Your task to perform on an android device: What is the capital of Italy? Image 0: 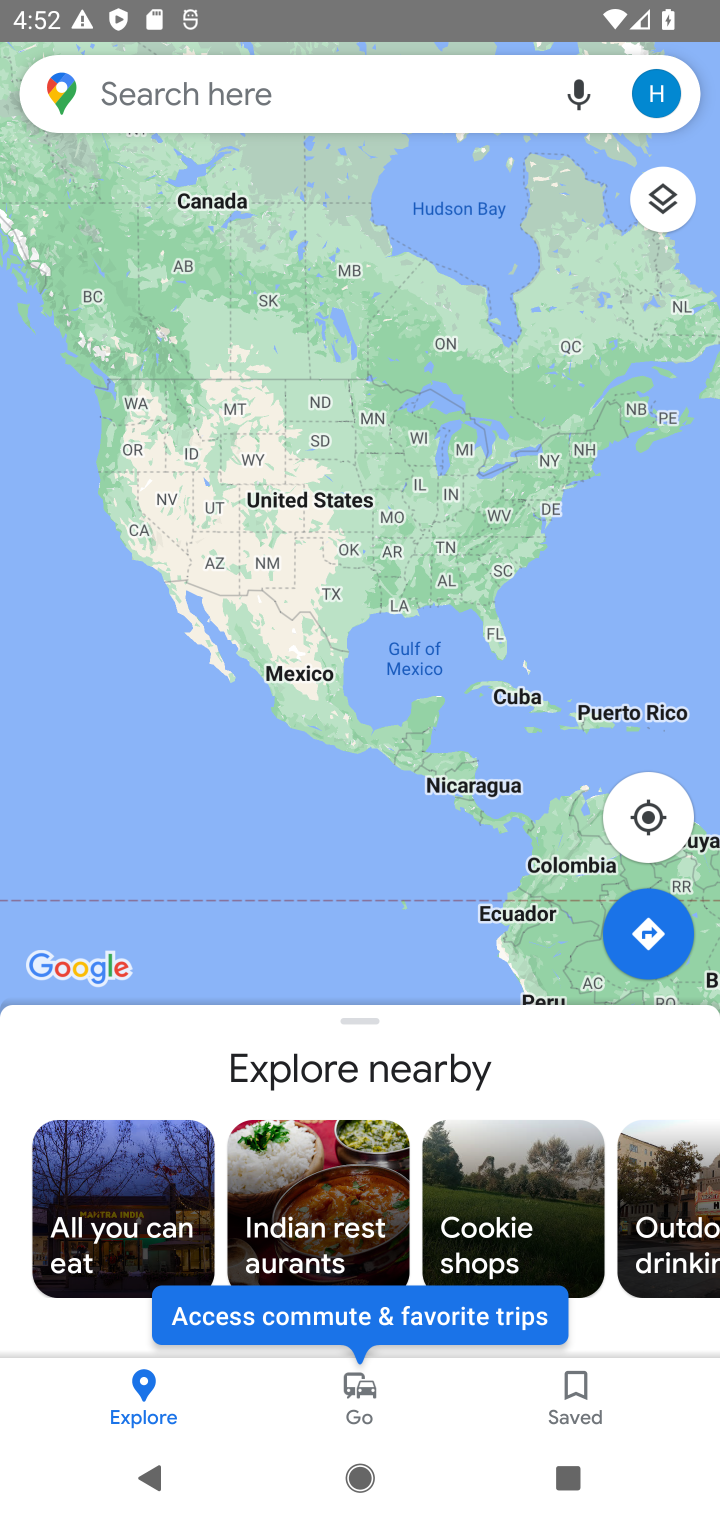
Step 0: press home button
Your task to perform on an android device: What is the capital of Italy? Image 1: 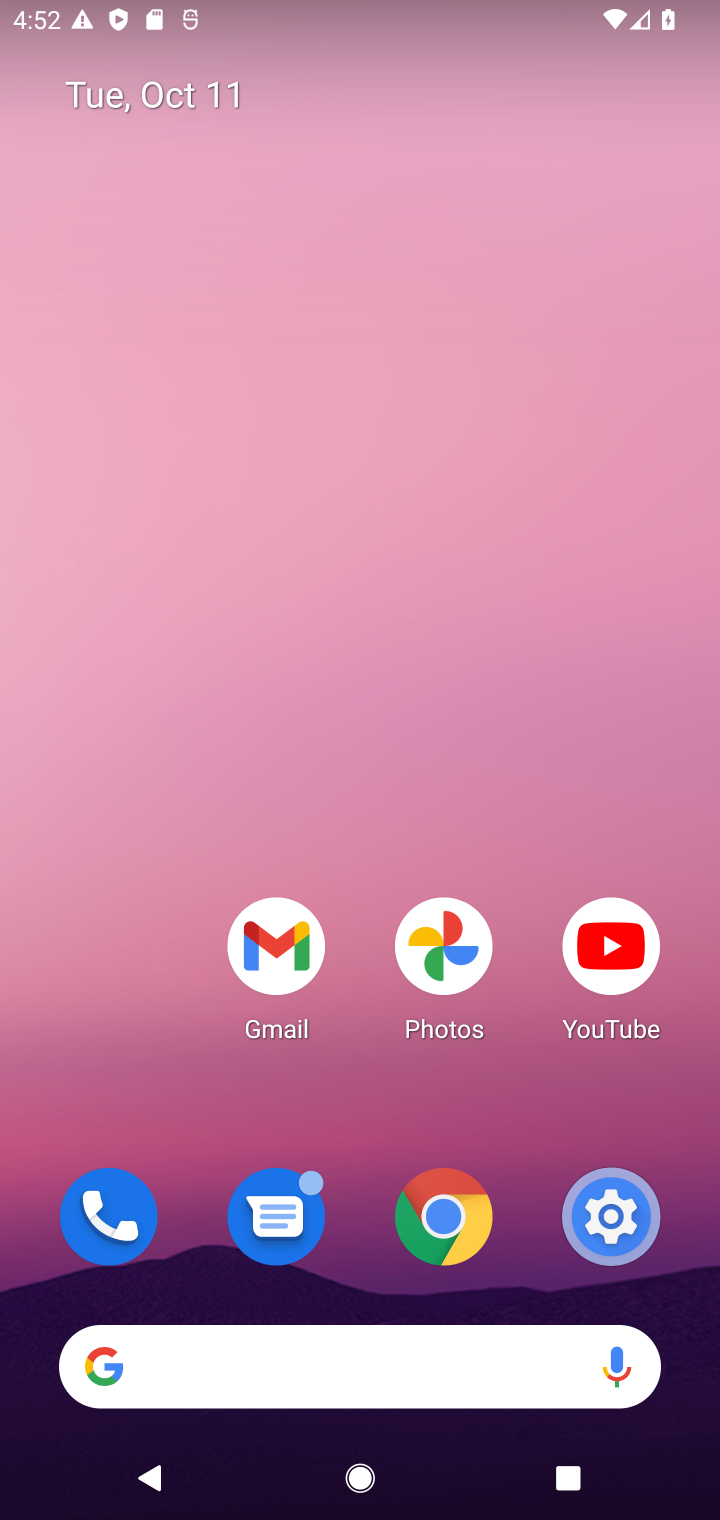
Step 1: click (440, 1223)
Your task to perform on an android device: What is the capital of Italy? Image 2: 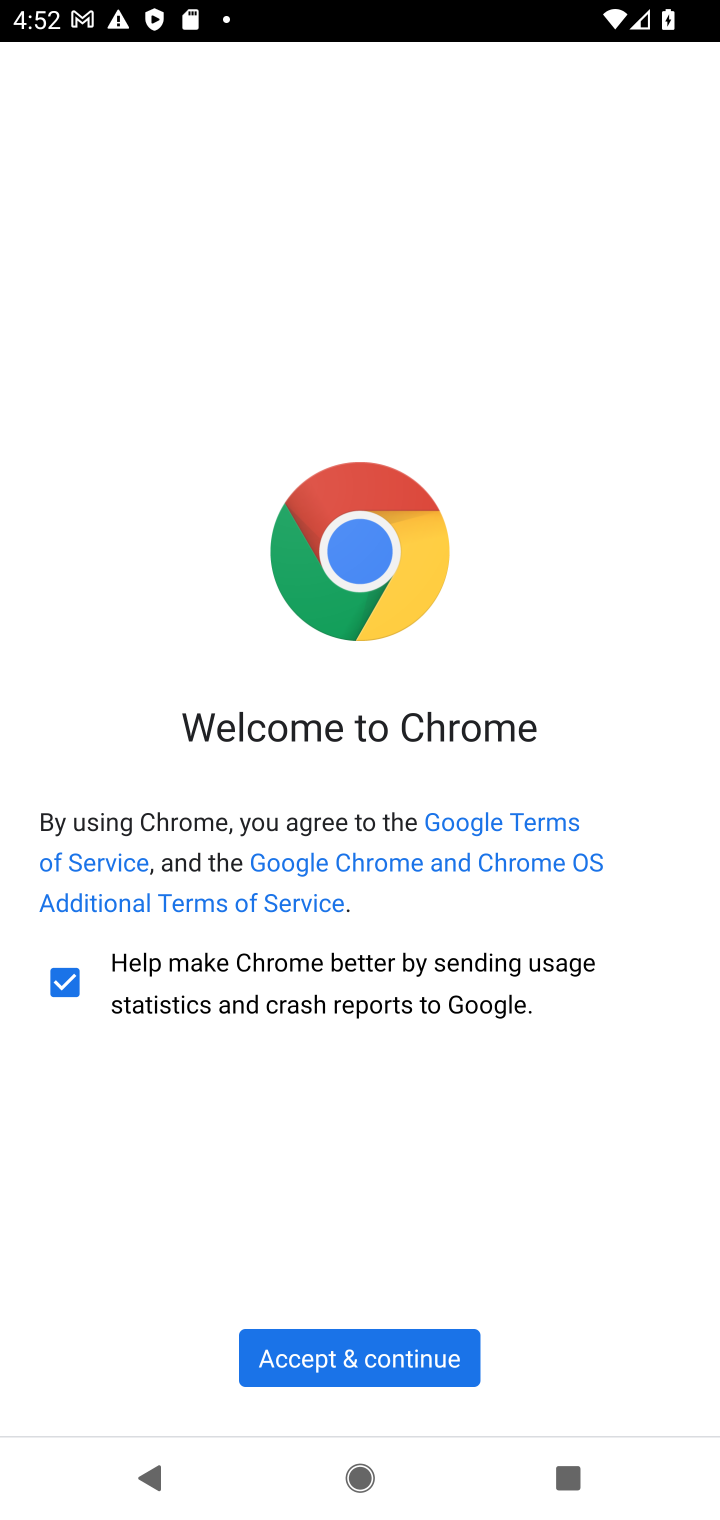
Step 2: click (350, 1360)
Your task to perform on an android device: What is the capital of Italy? Image 3: 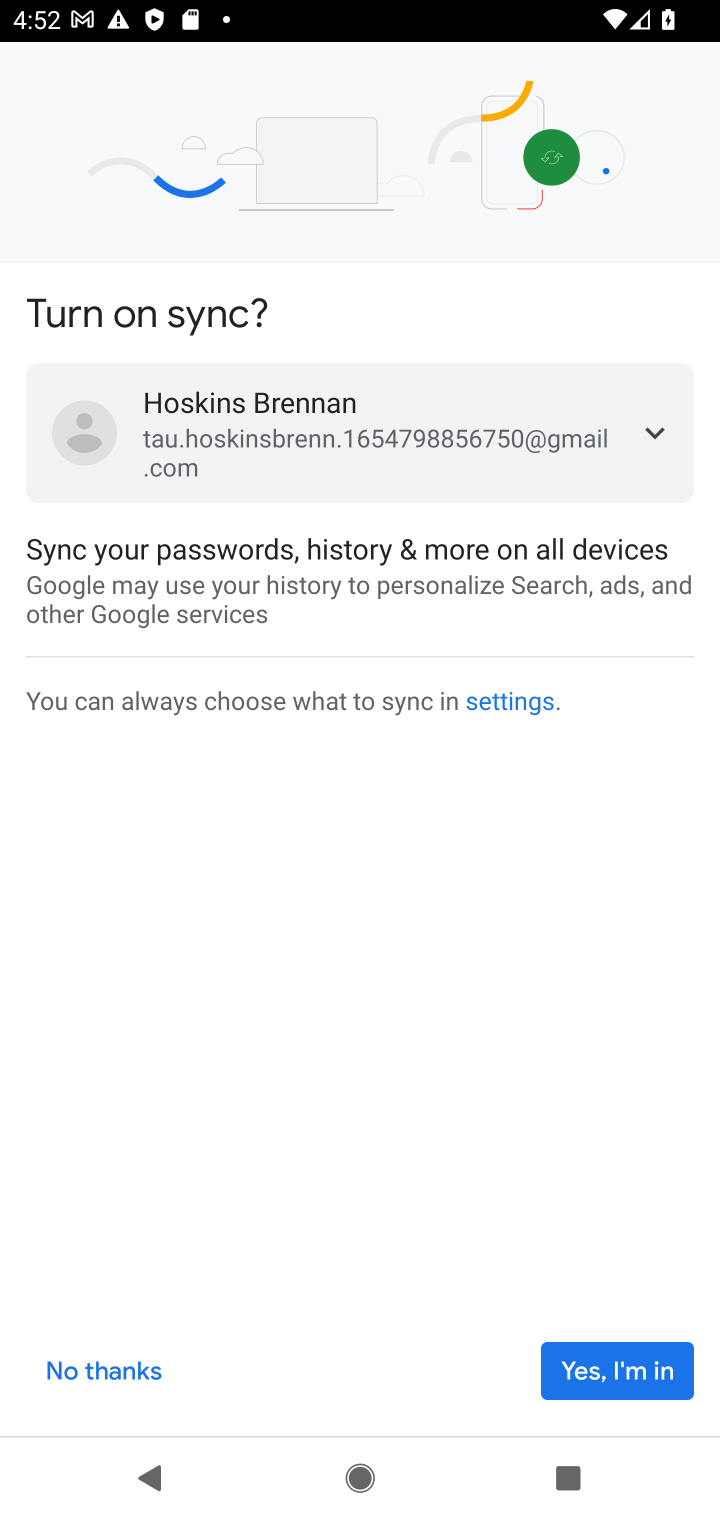
Step 3: click (598, 1374)
Your task to perform on an android device: What is the capital of Italy? Image 4: 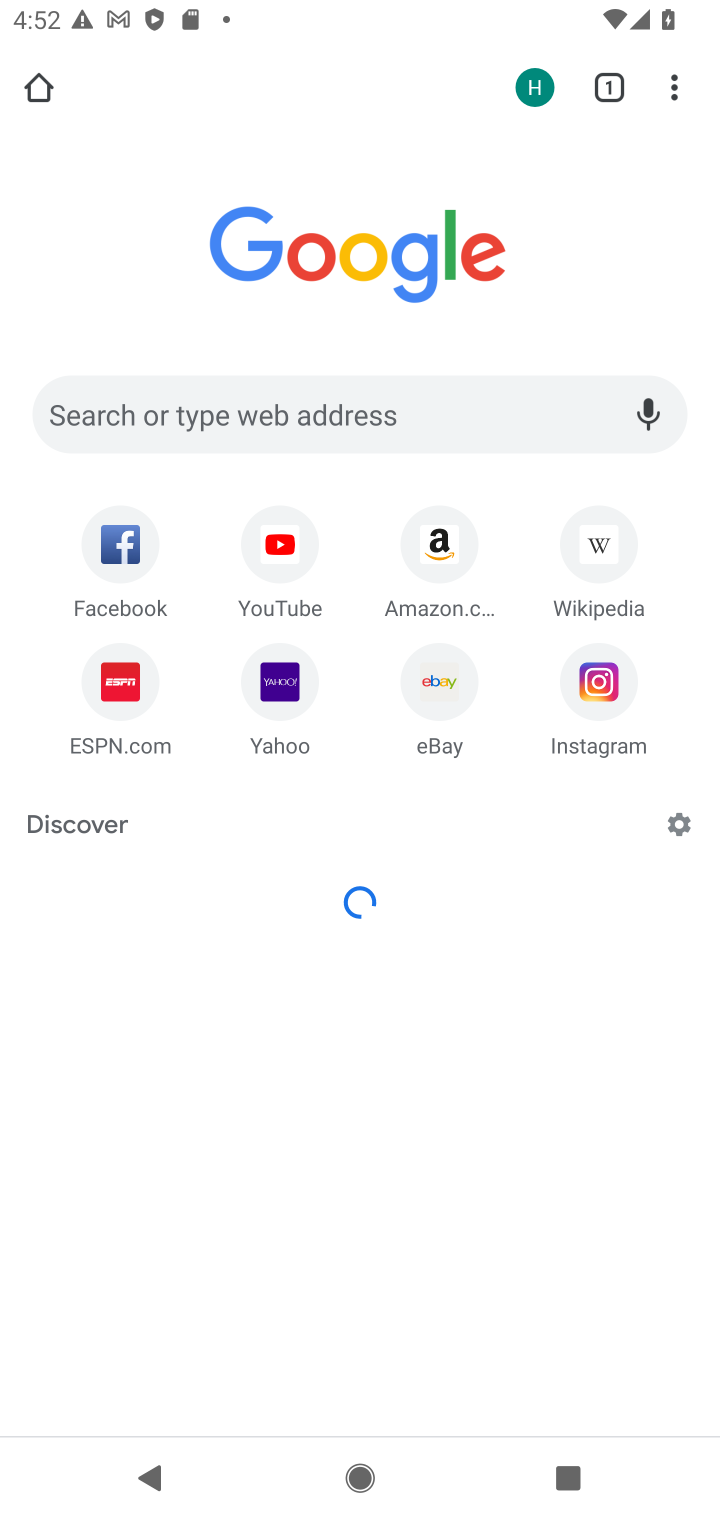
Step 4: click (382, 394)
Your task to perform on an android device: What is the capital of Italy? Image 5: 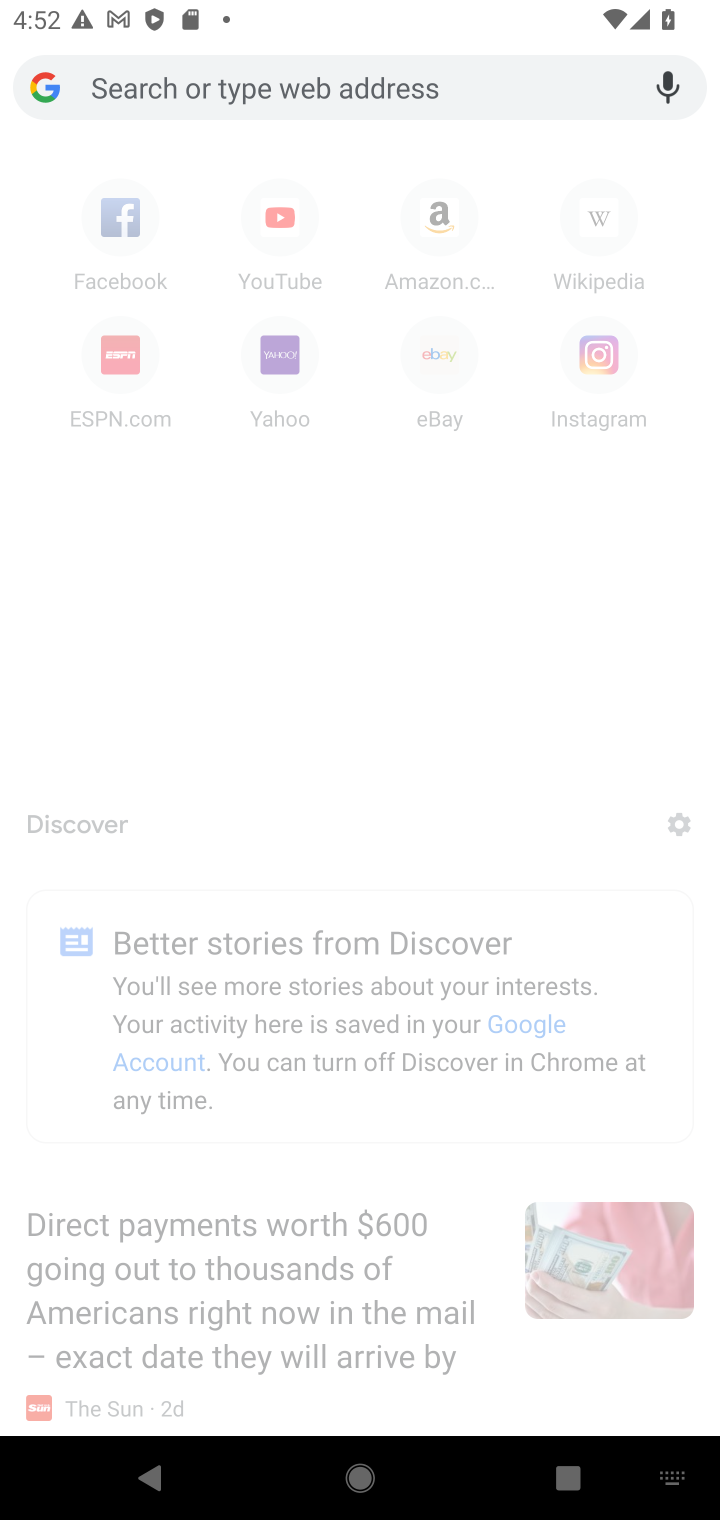
Step 5: type "What is the capital of Italy?"
Your task to perform on an android device: What is the capital of Italy? Image 6: 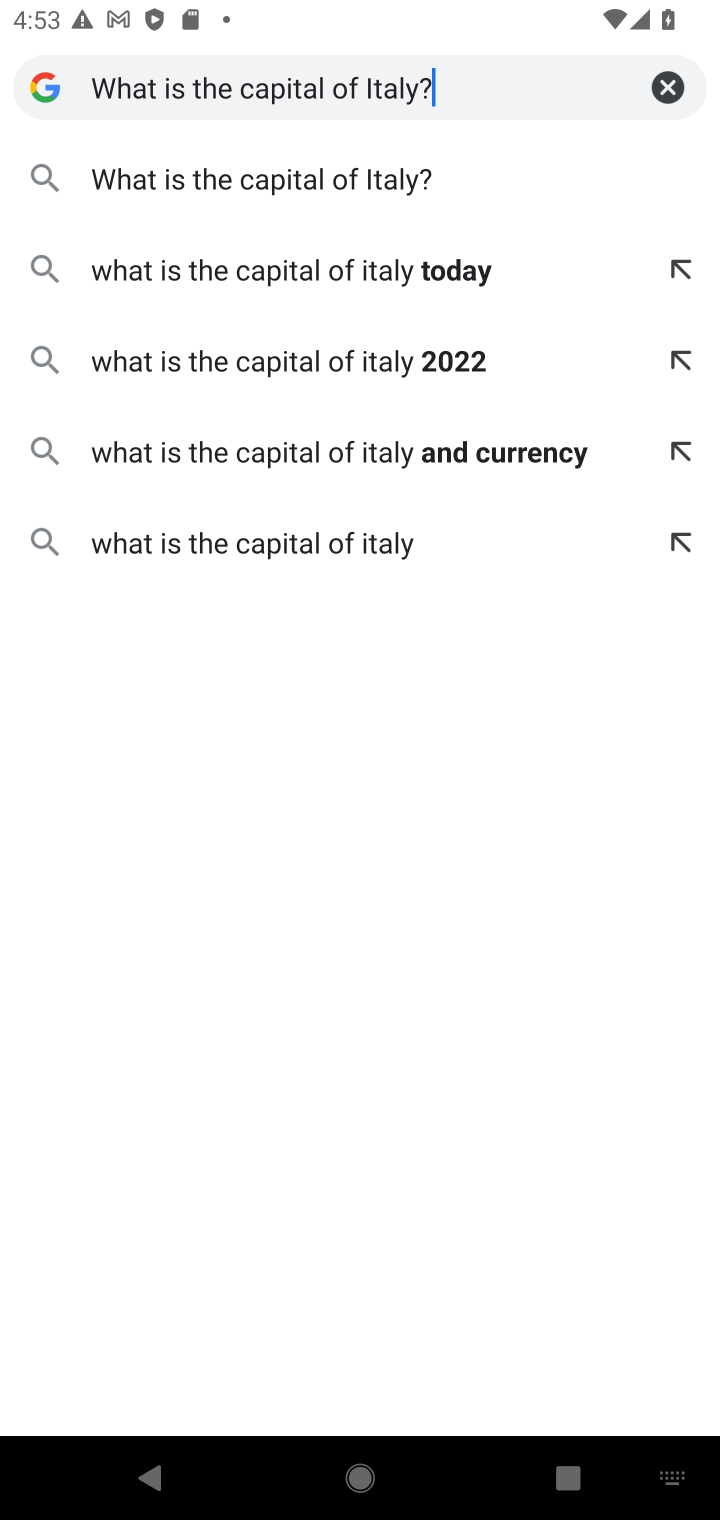
Step 6: click (386, 178)
Your task to perform on an android device: What is the capital of Italy? Image 7: 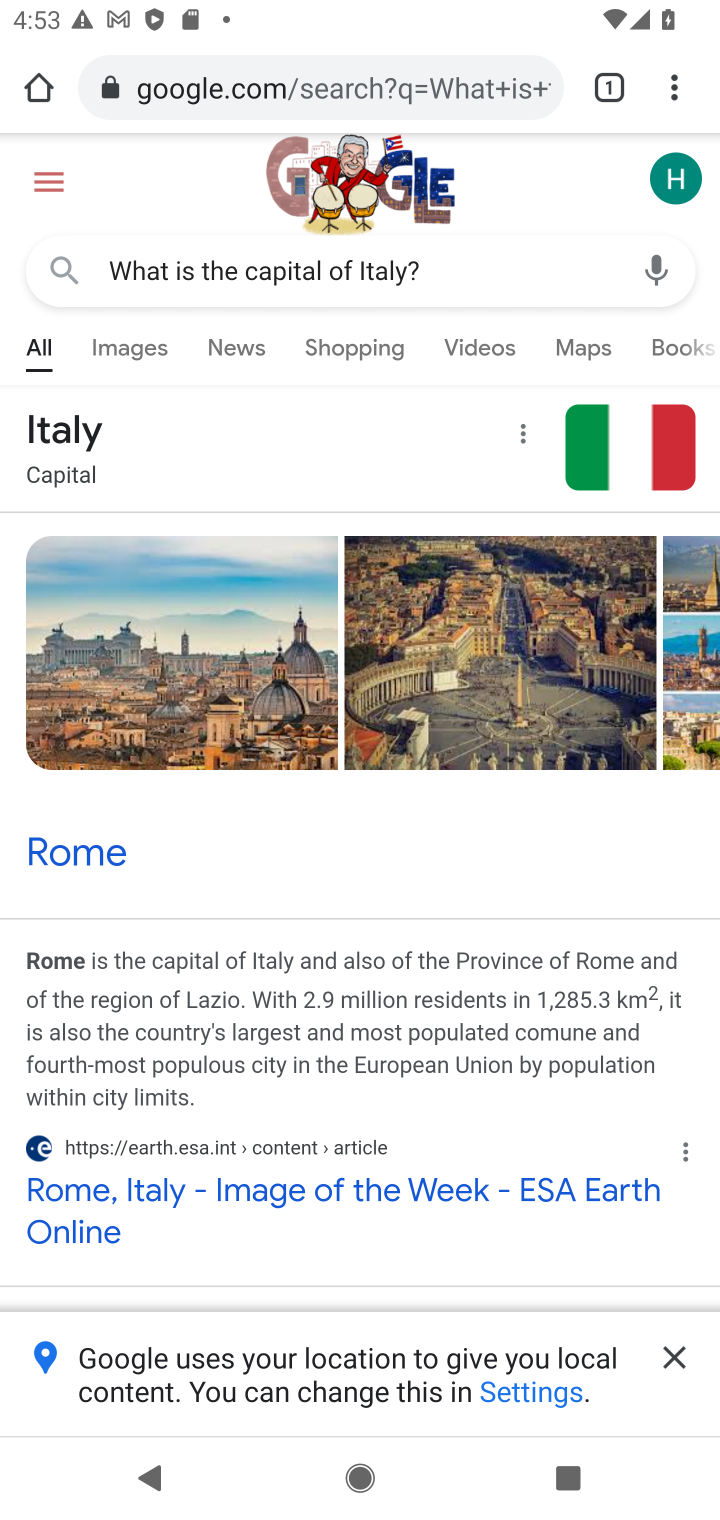
Step 7: task complete